Your task to perform on an android device: Add macbook pro to the cart on amazon.com Image 0: 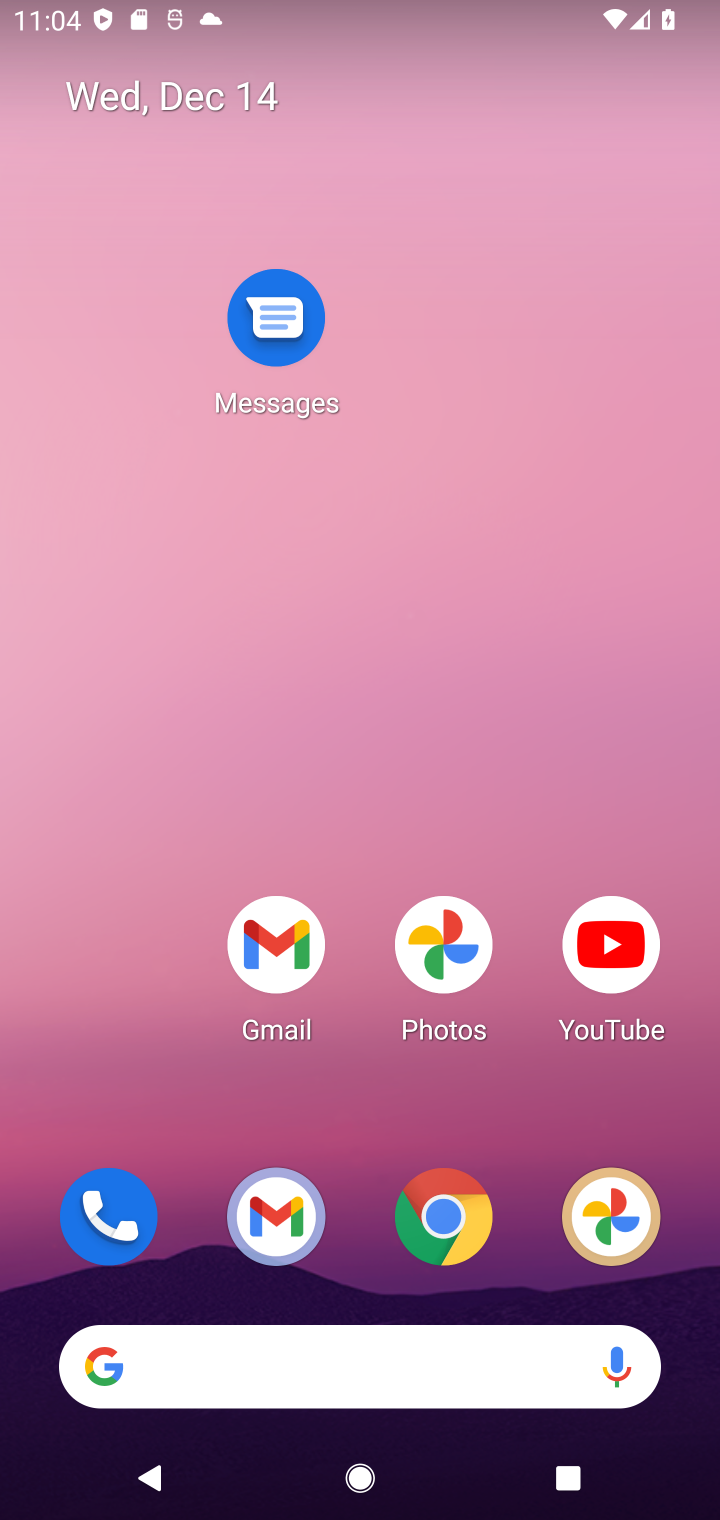
Step 0: drag from (424, 1367) to (474, 387)
Your task to perform on an android device: Add macbook pro to the cart on amazon.com Image 1: 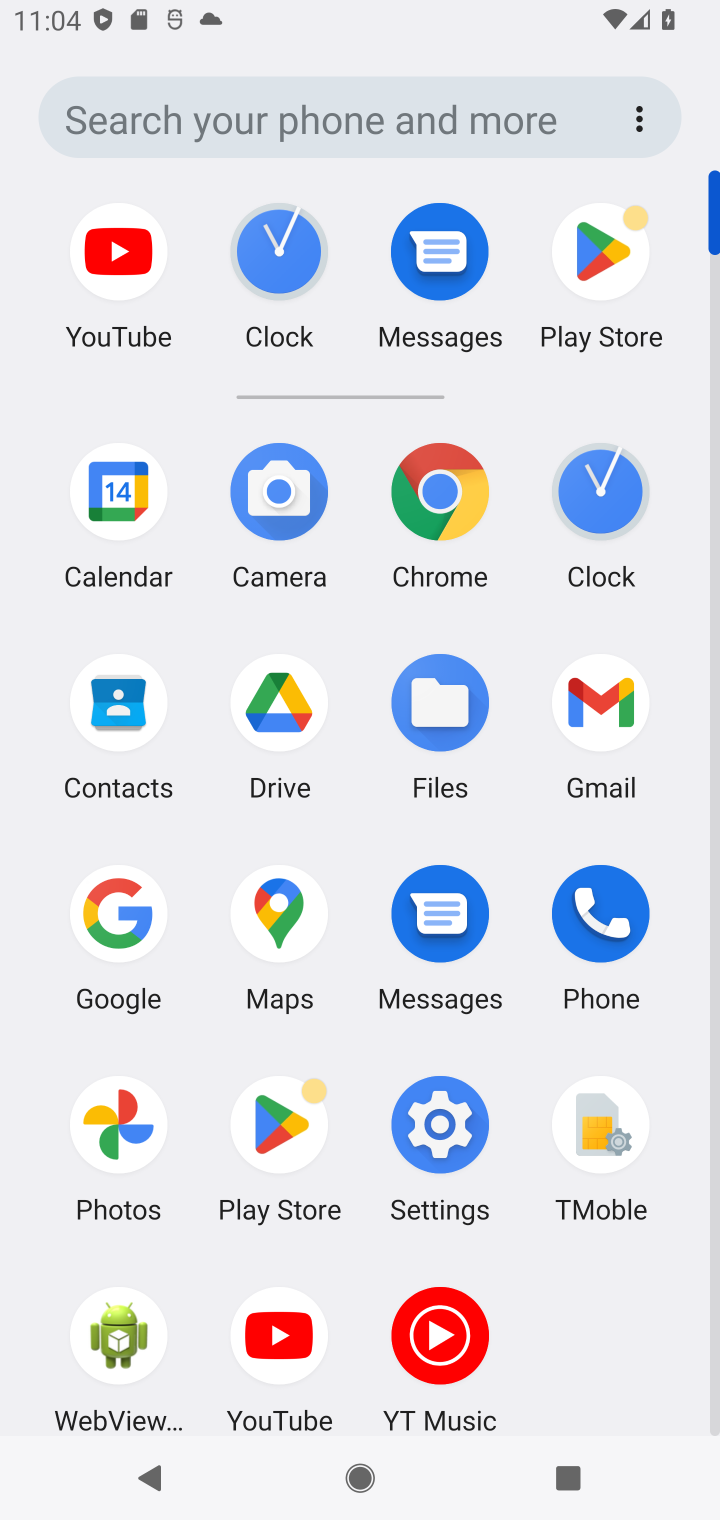
Step 1: click (117, 927)
Your task to perform on an android device: Add macbook pro to the cart on amazon.com Image 2: 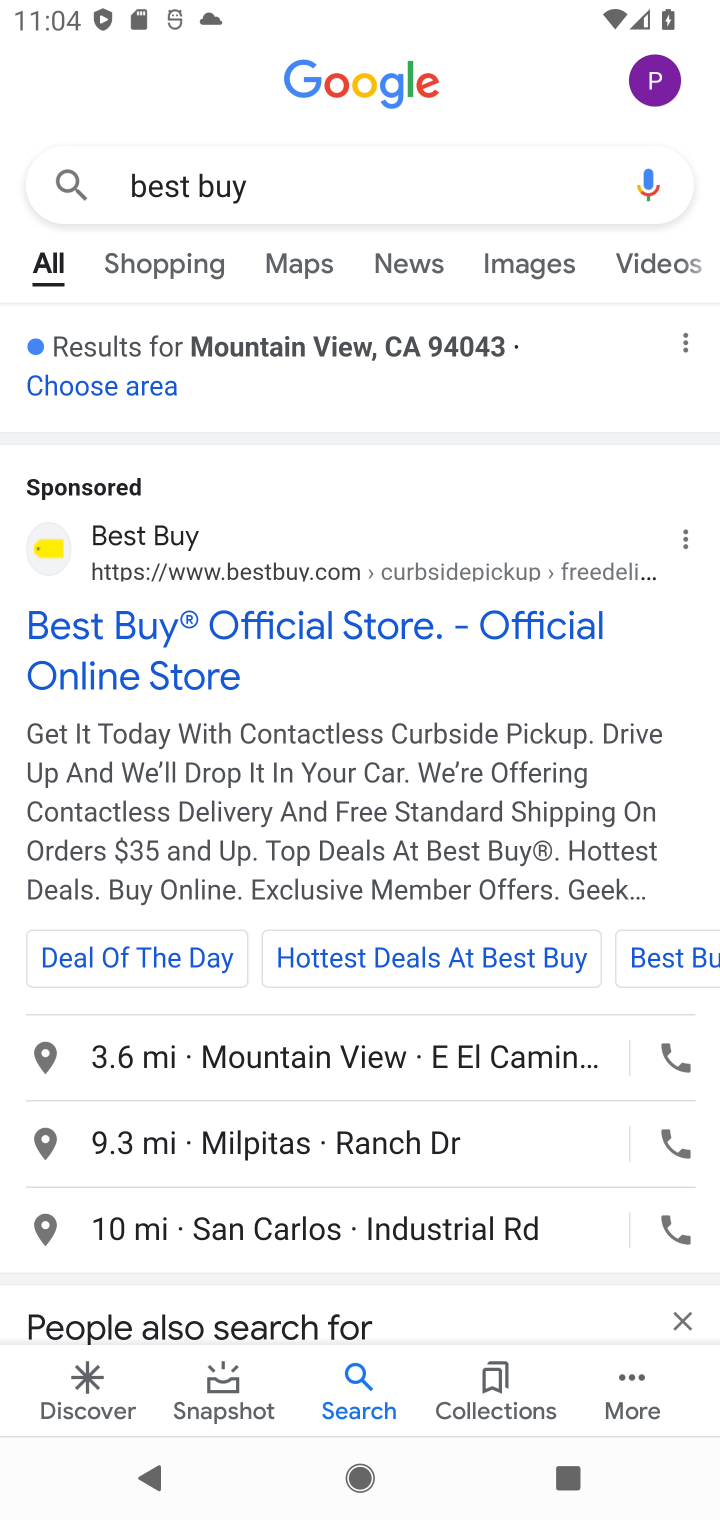
Step 2: click (227, 186)
Your task to perform on an android device: Add macbook pro to the cart on amazon.com Image 3: 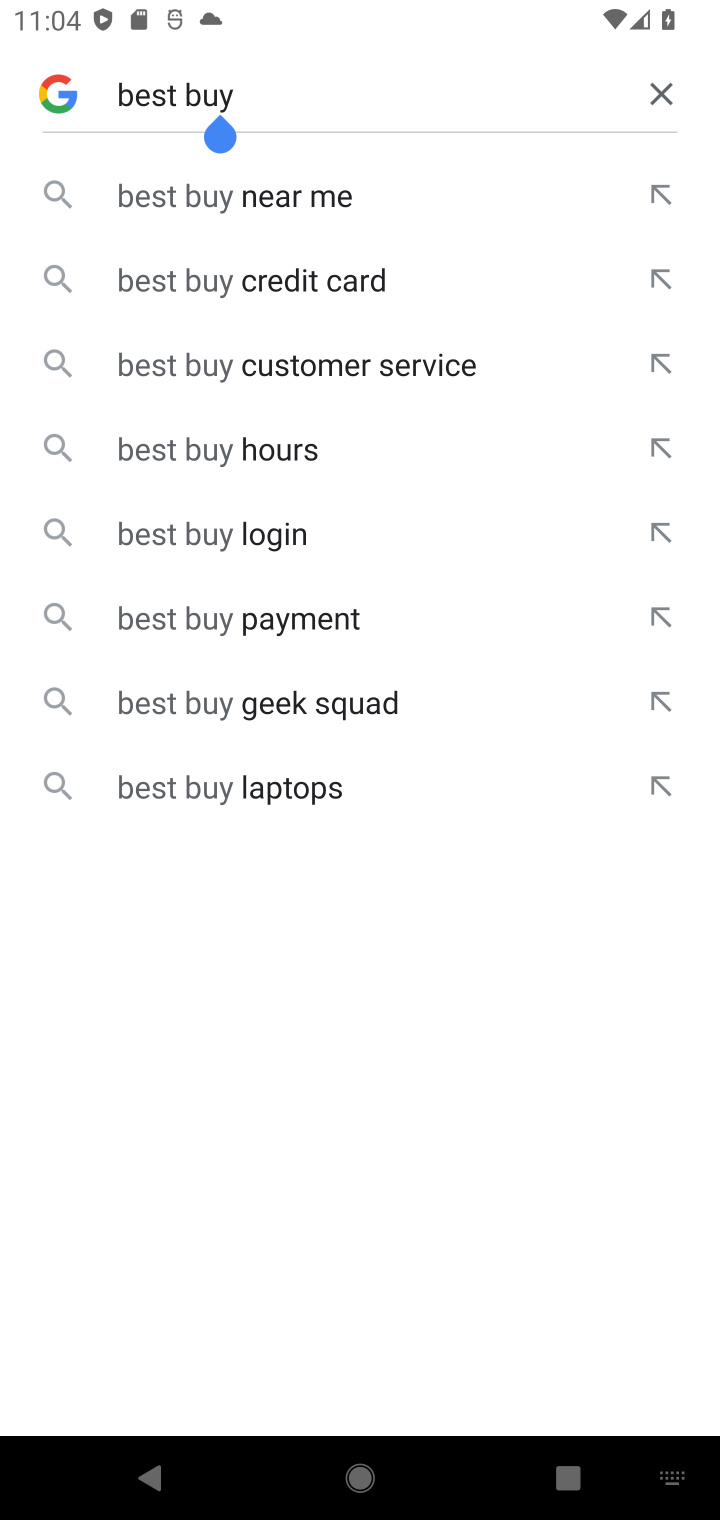
Step 3: click (663, 88)
Your task to perform on an android device: Add macbook pro to the cart on amazon.com Image 4: 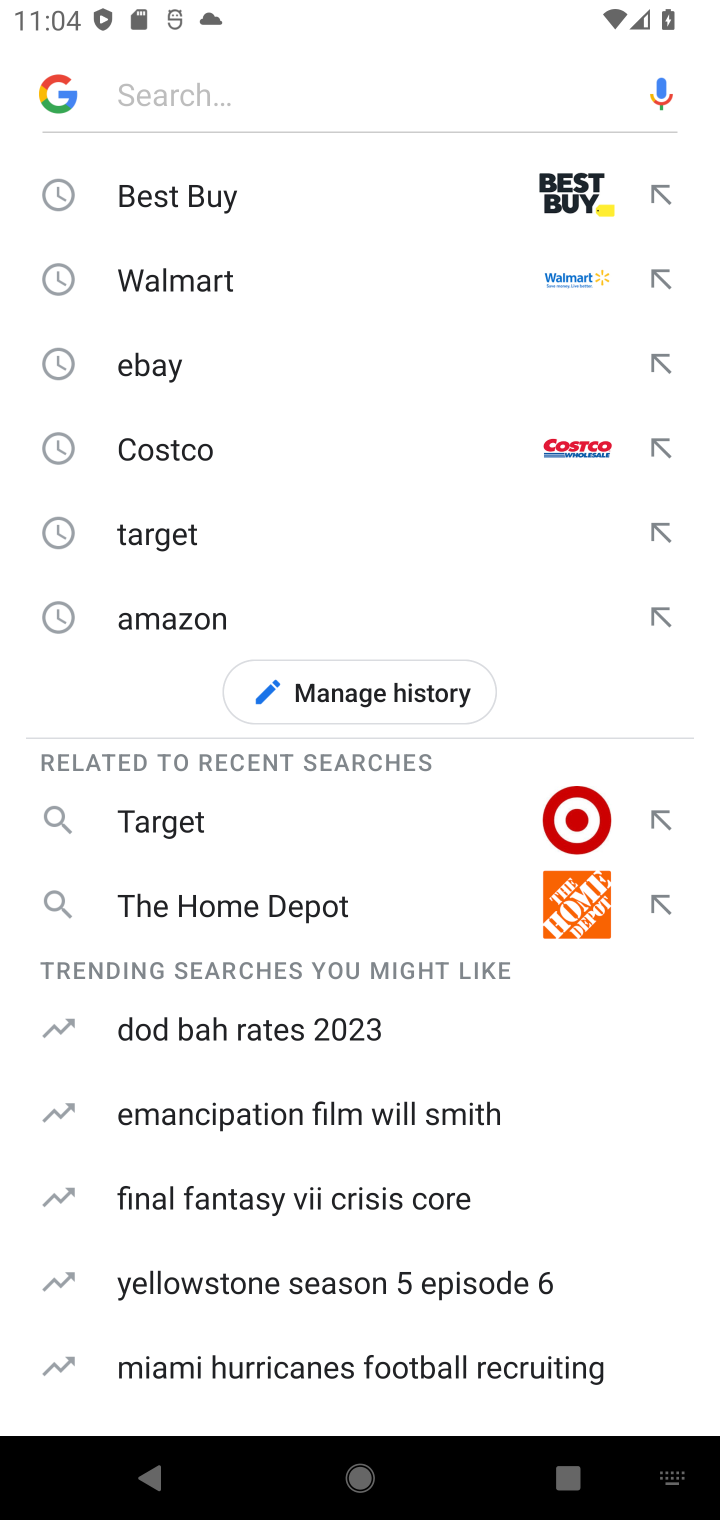
Step 4: click (210, 621)
Your task to perform on an android device: Add macbook pro to the cart on amazon.com Image 5: 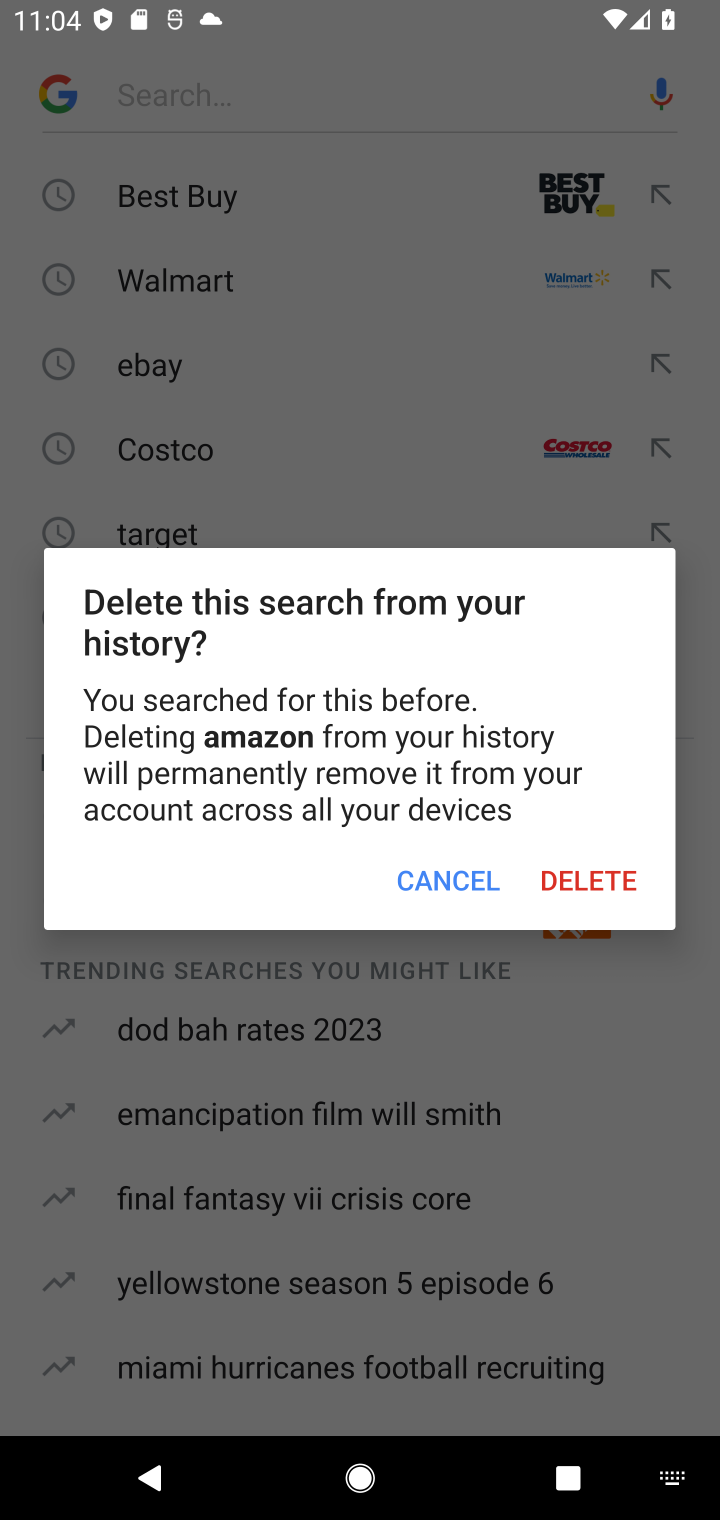
Step 5: click (445, 881)
Your task to perform on an android device: Add macbook pro to the cart on amazon.com Image 6: 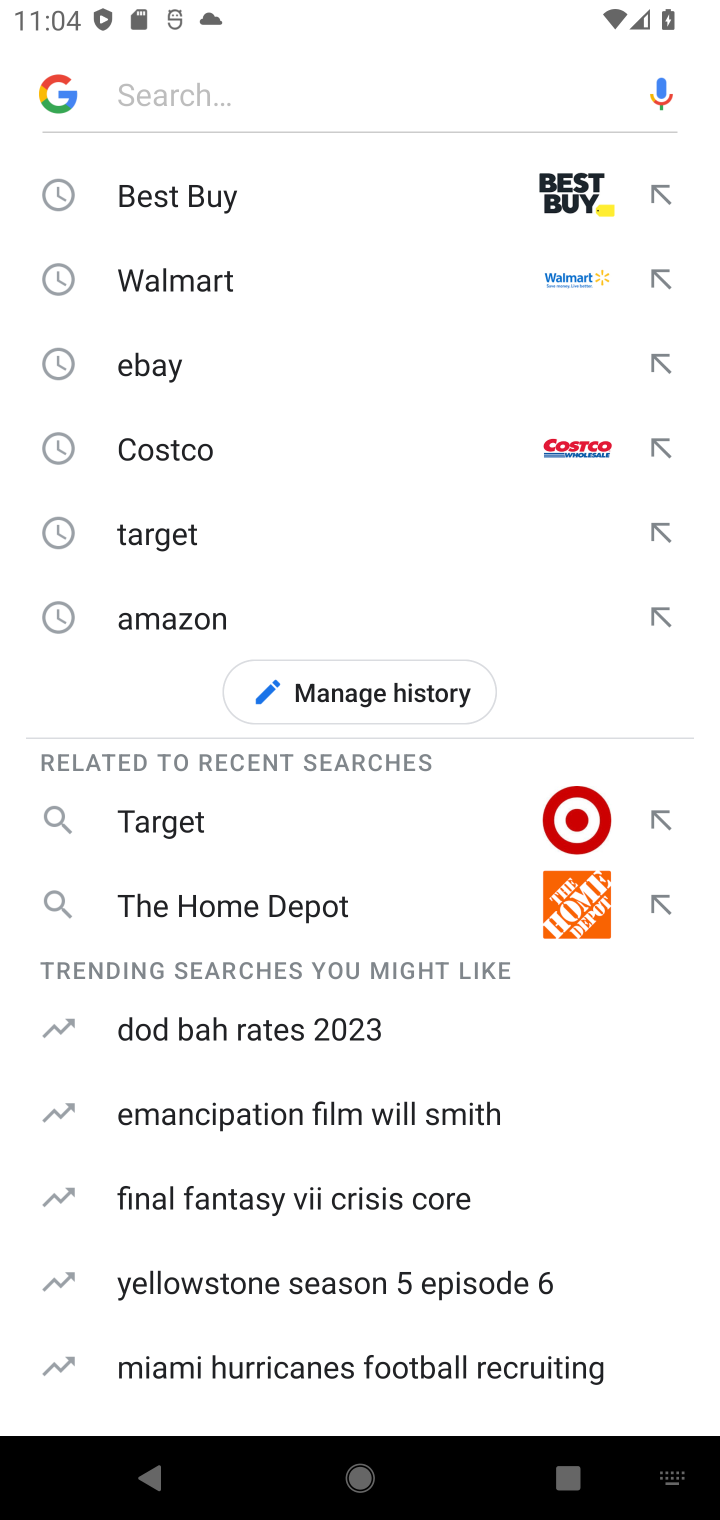
Step 6: click (167, 615)
Your task to perform on an android device: Add macbook pro to the cart on amazon.com Image 7: 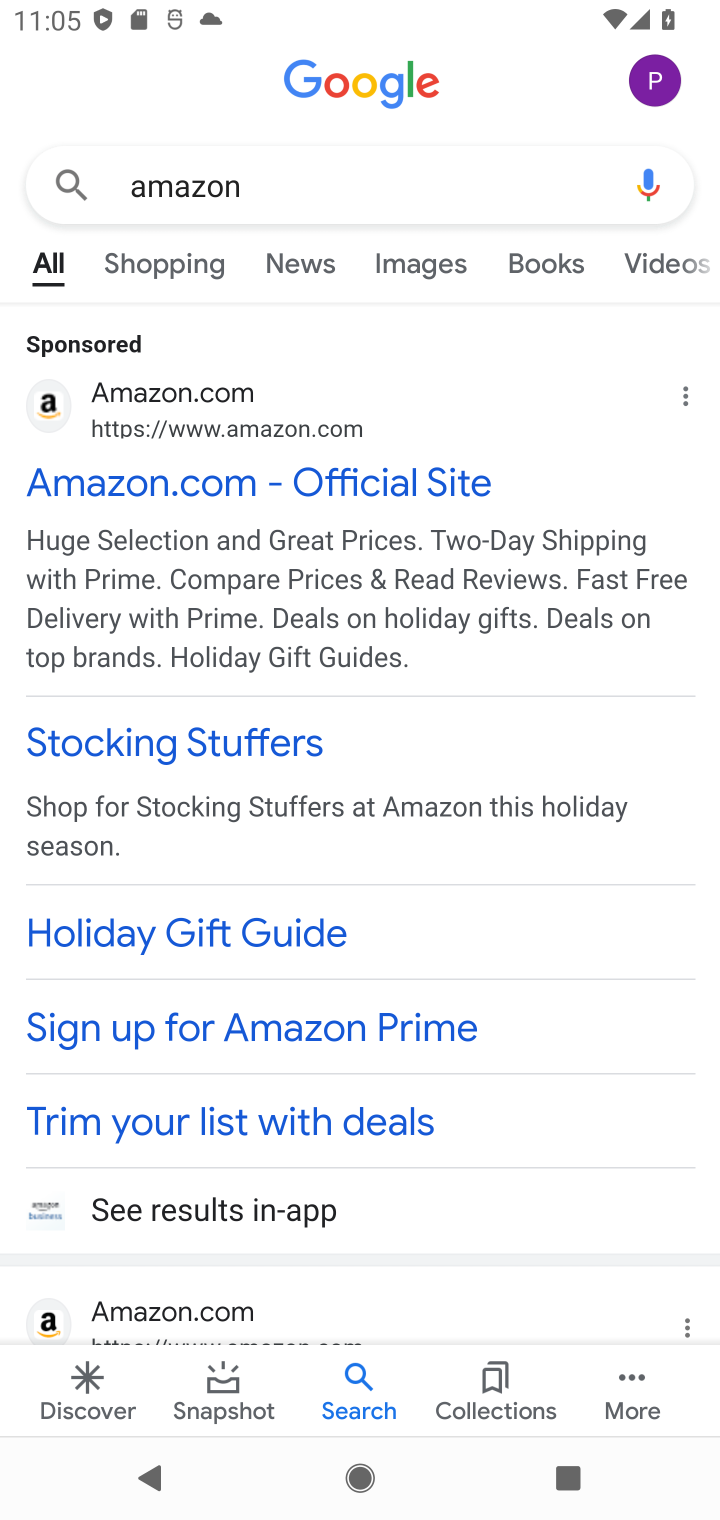
Step 7: click (200, 470)
Your task to perform on an android device: Add macbook pro to the cart on amazon.com Image 8: 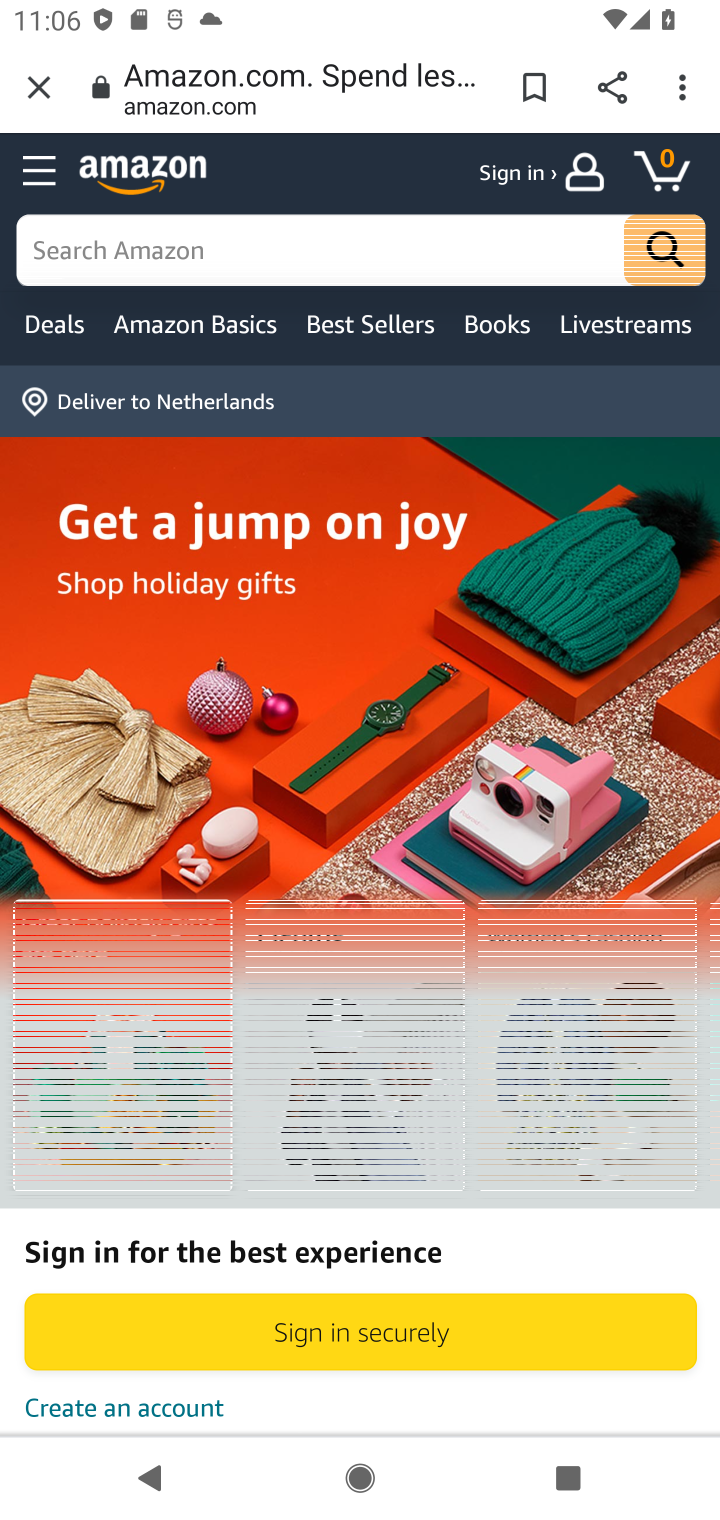
Step 8: click (252, 253)
Your task to perform on an android device: Add macbook pro to the cart on amazon.com Image 9: 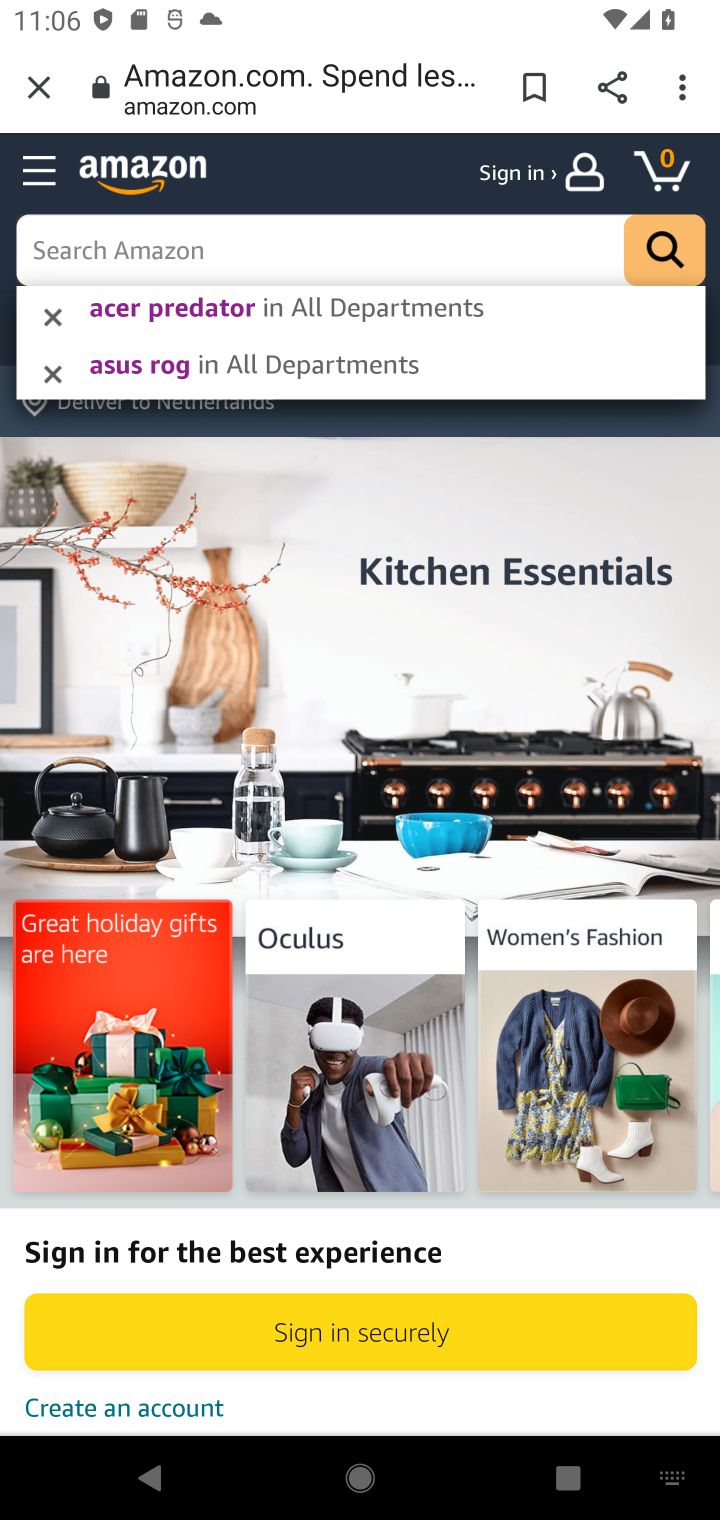
Step 9: type " macbook pro"
Your task to perform on an android device: Add macbook pro to the cart on amazon.com Image 10: 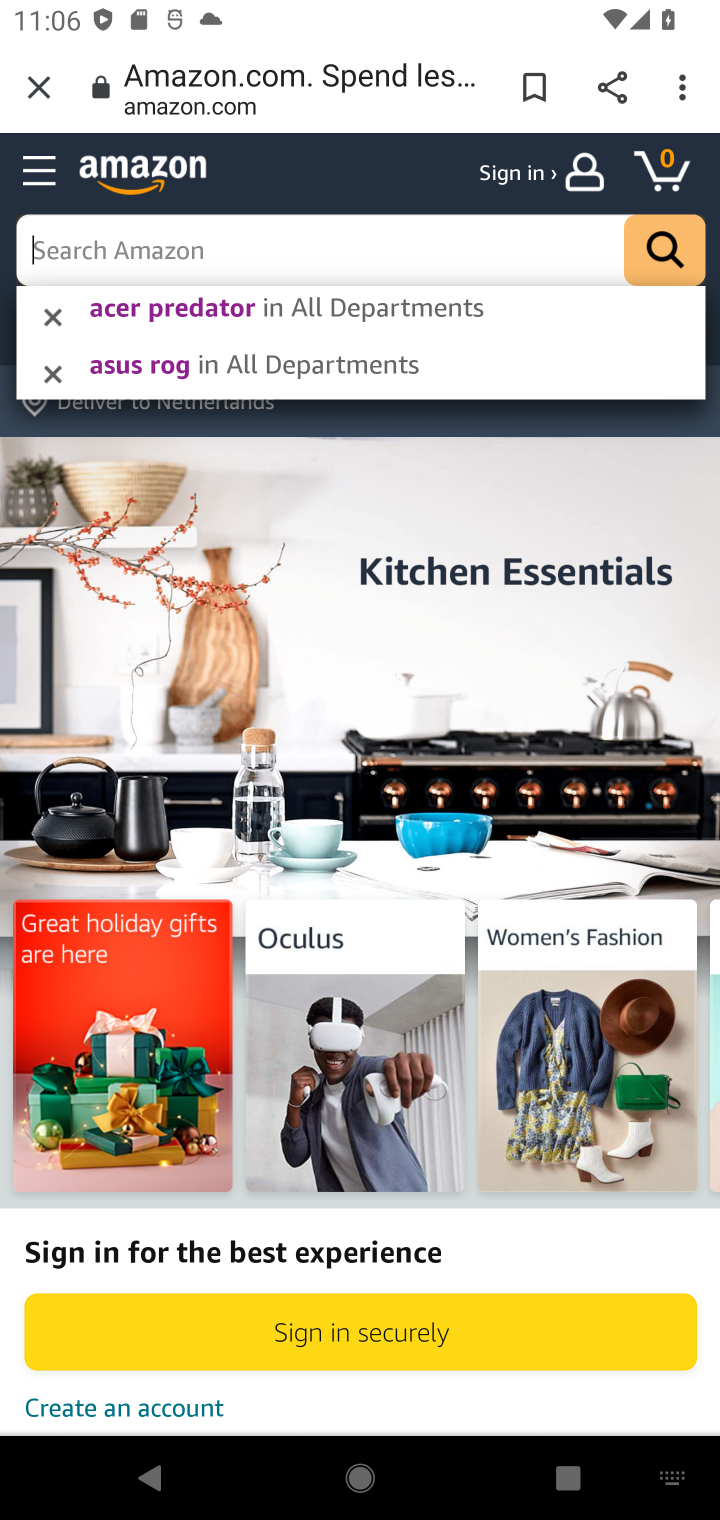
Step 10: click (665, 252)
Your task to perform on an android device: Add macbook pro to the cart on amazon.com Image 11: 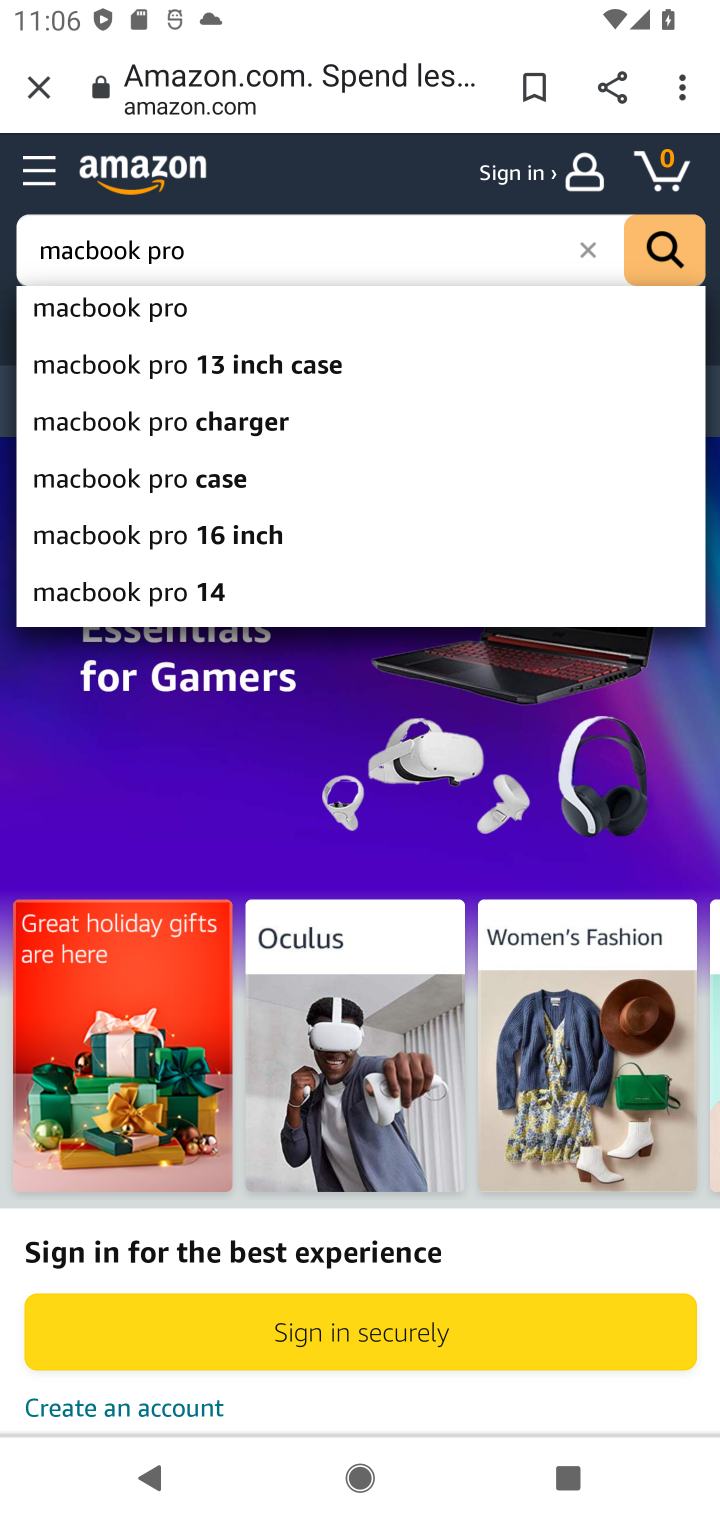
Step 11: click (126, 317)
Your task to perform on an android device: Add macbook pro to the cart on amazon.com Image 12: 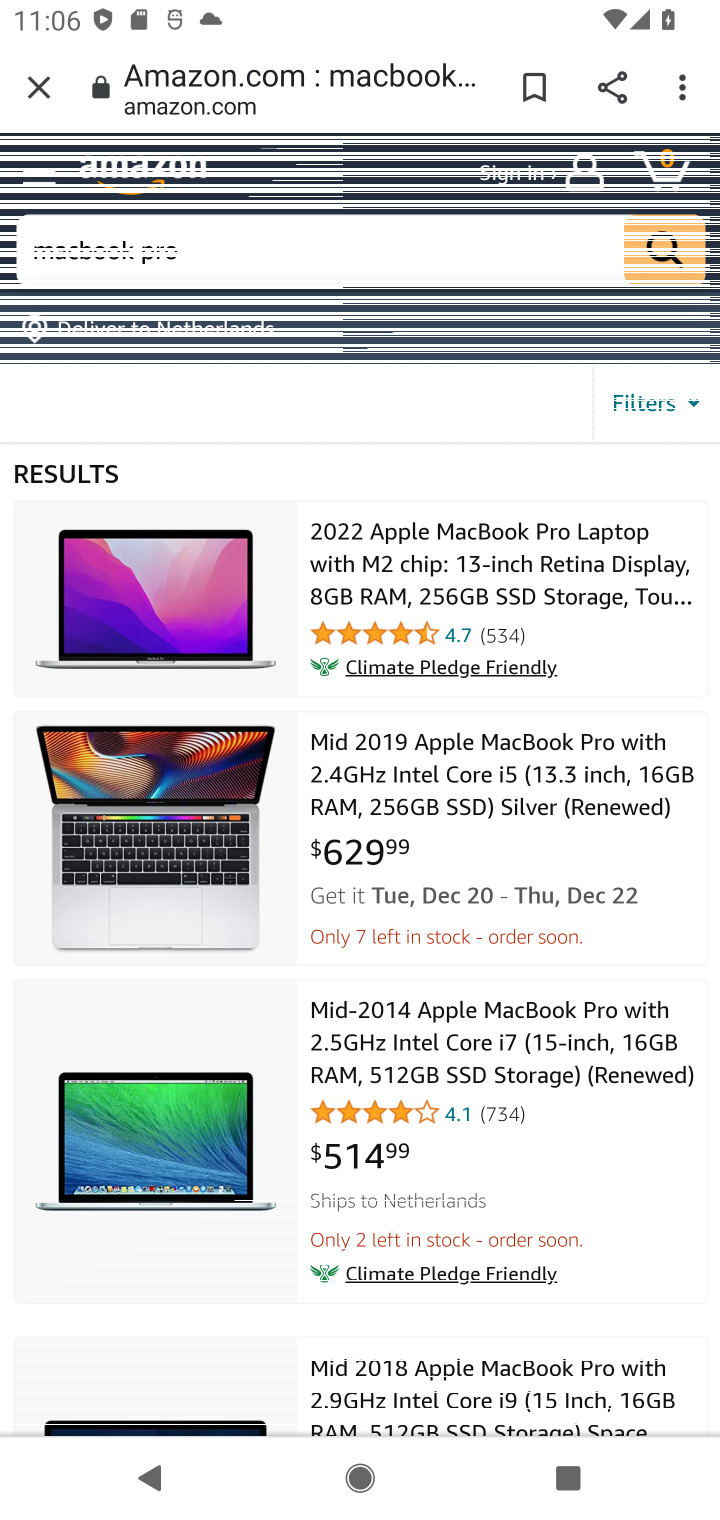
Step 12: click (375, 580)
Your task to perform on an android device: Add macbook pro to the cart on amazon.com Image 13: 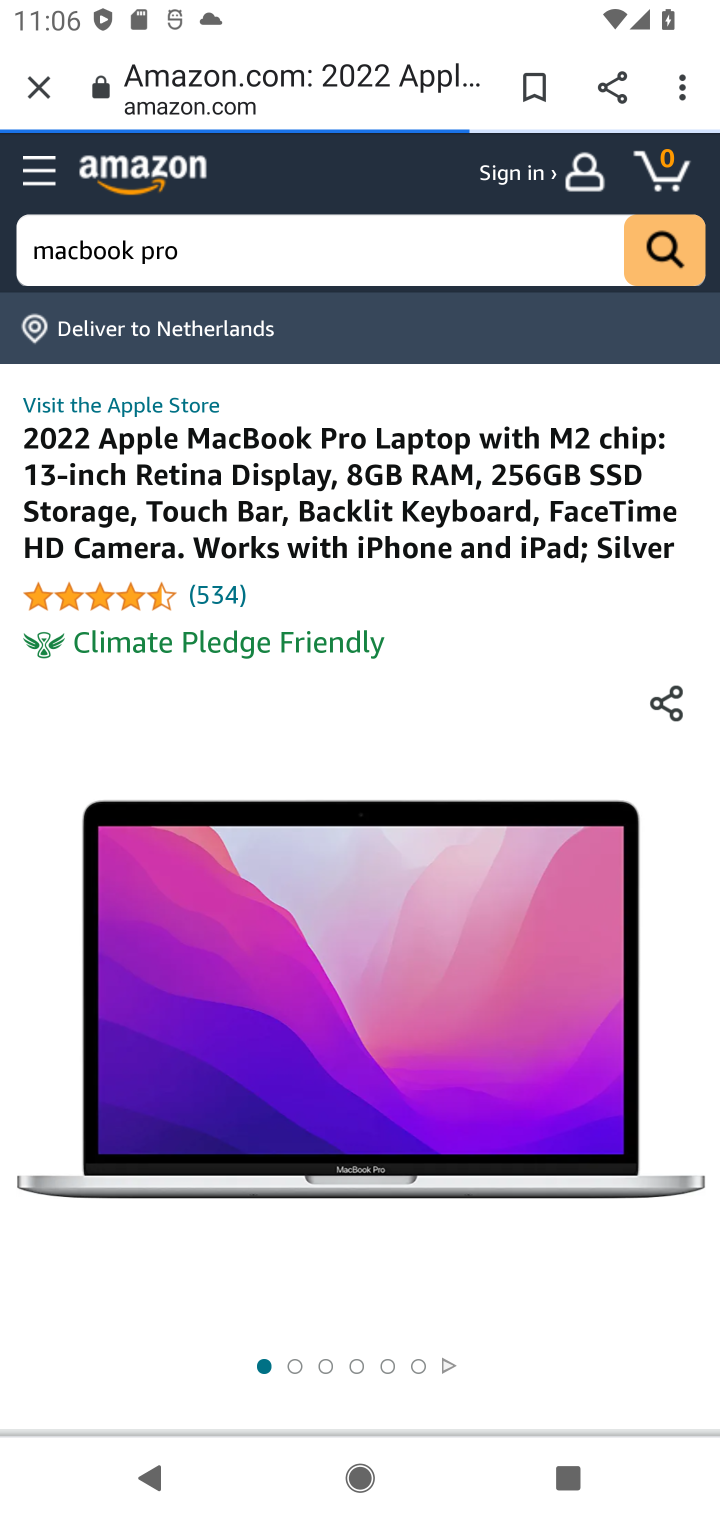
Step 13: task complete